Your task to perform on an android device: turn off sleep mode Image 0: 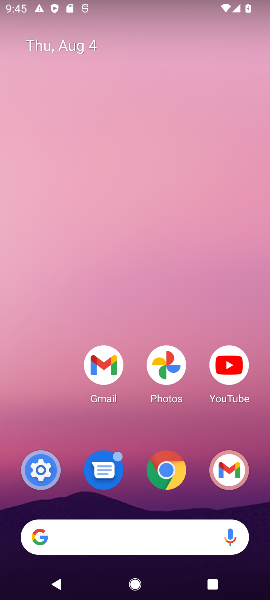
Step 0: click (31, 470)
Your task to perform on an android device: turn off sleep mode Image 1: 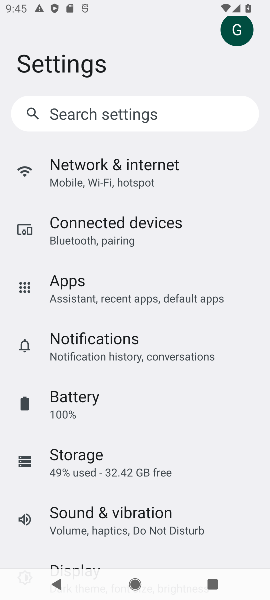
Step 1: drag from (121, 541) to (103, 280)
Your task to perform on an android device: turn off sleep mode Image 2: 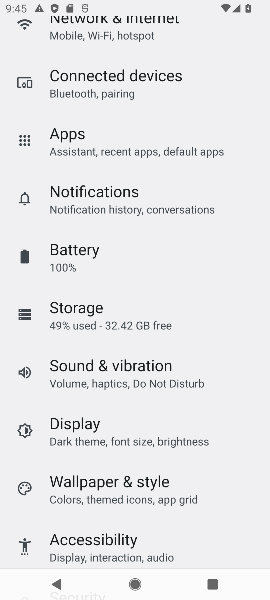
Step 2: click (72, 419)
Your task to perform on an android device: turn off sleep mode Image 3: 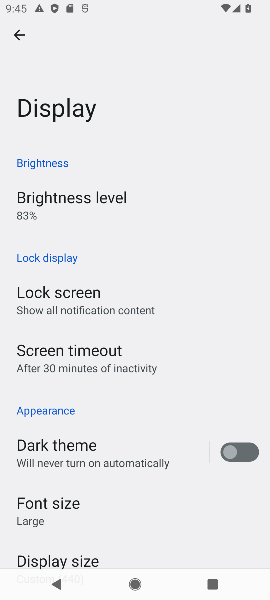
Step 3: task complete